Your task to perform on an android device: Open privacy settings Image 0: 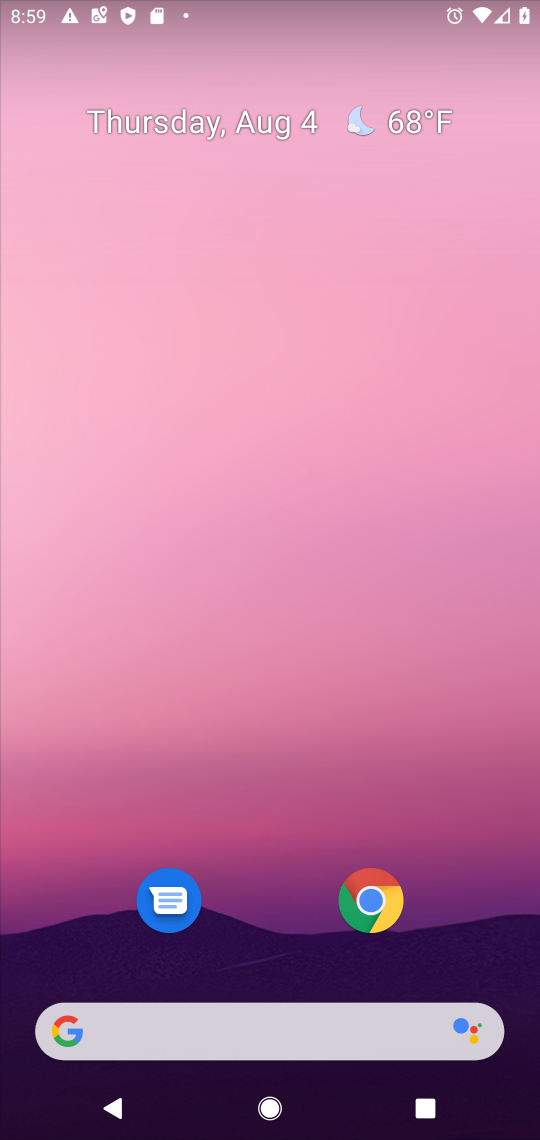
Step 0: drag from (213, 1043) to (350, 214)
Your task to perform on an android device: Open privacy settings Image 1: 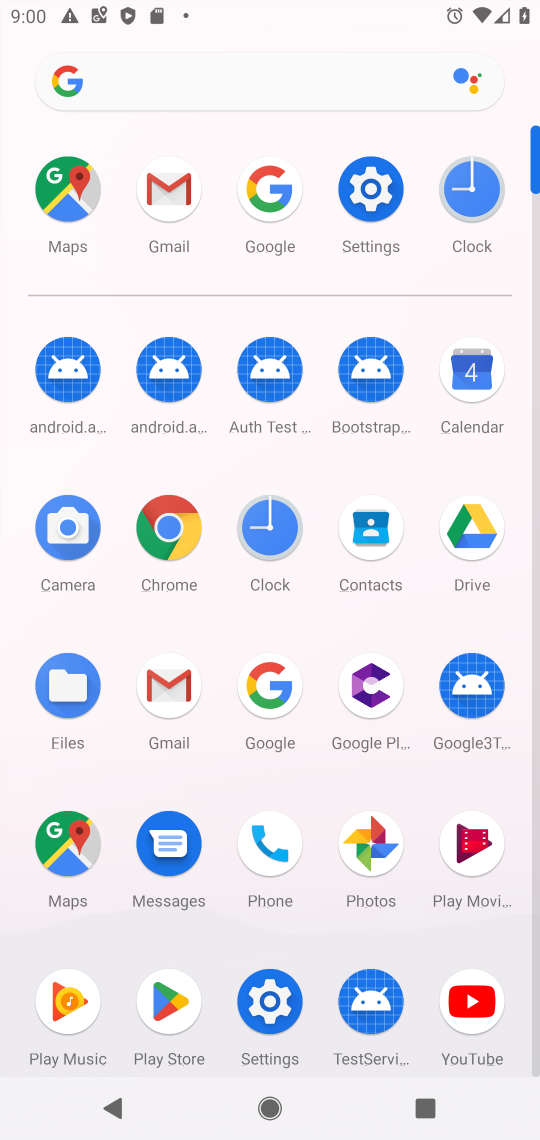
Step 1: click (368, 186)
Your task to perform on an android device: Open privacy settings Image 2: 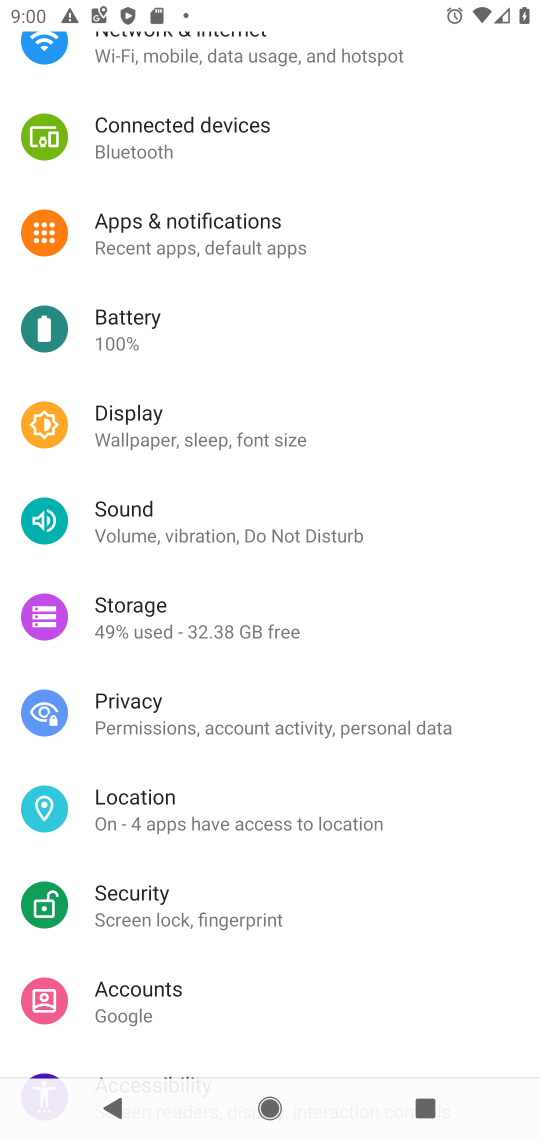
Step 2: click (147, 698)
Your task to perform on an android device: Open privacy settings Image 3: 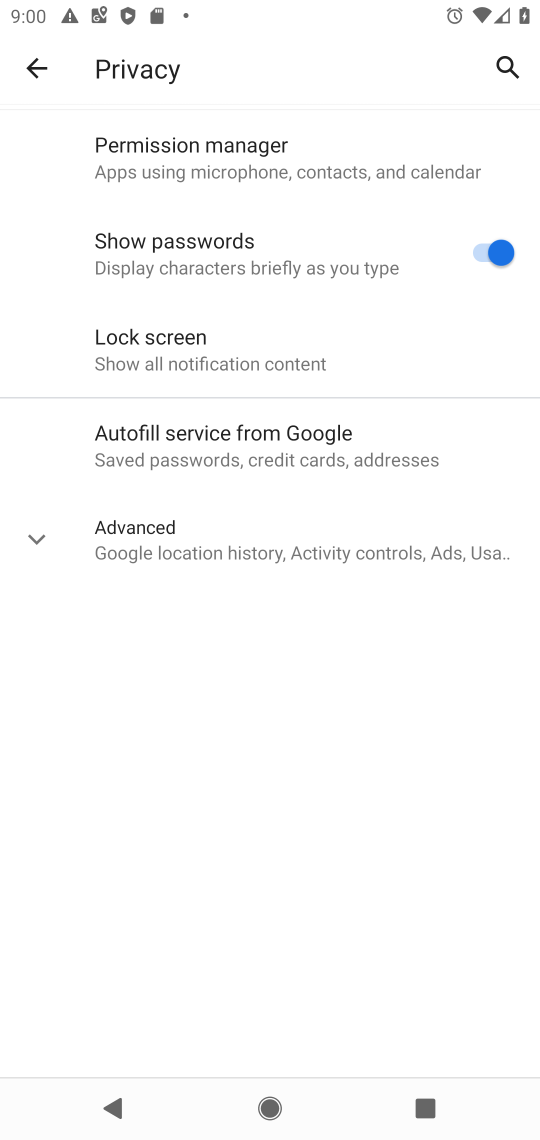
Step 3: task complete